Your task to perform on an android device: What's the weather? Image 0: 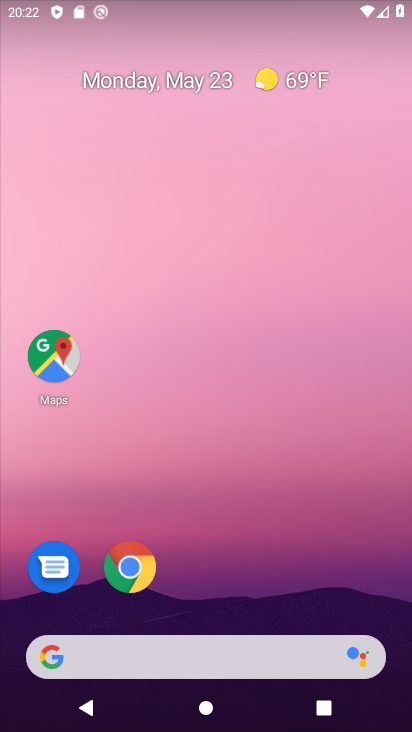
Step 0: drag from (207, 600) to (233, 42)
Your task to perform on an android device: What's the weather? Image 1: 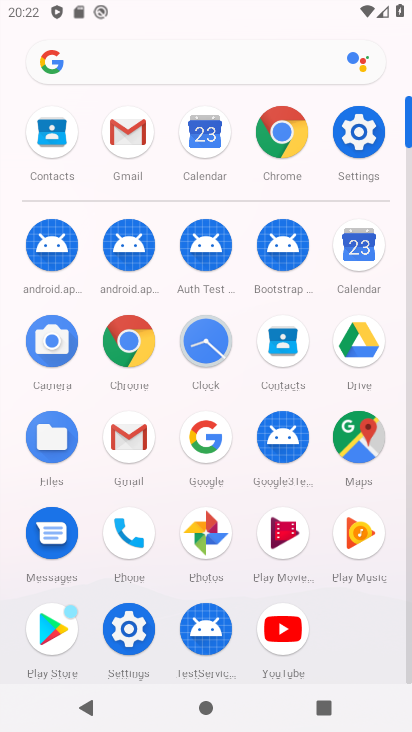
Step 1: drag from (257, 49) to (229, 583)
Your task to perform on an android device: What's the weather? Image 2: 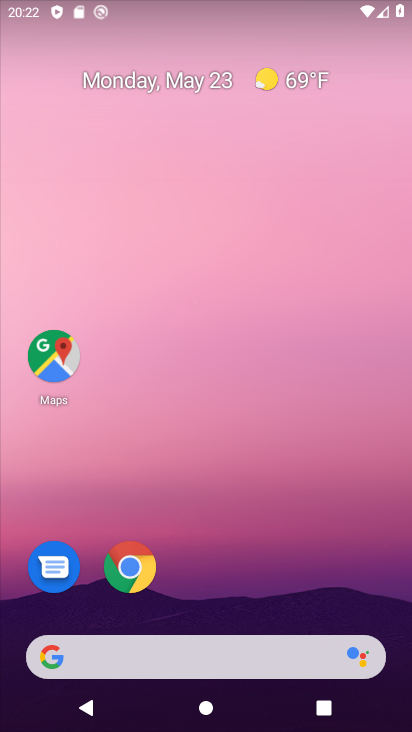
Step 2: click (309, 68)
Your task to perform on an android device: What's the weather? Image 3: 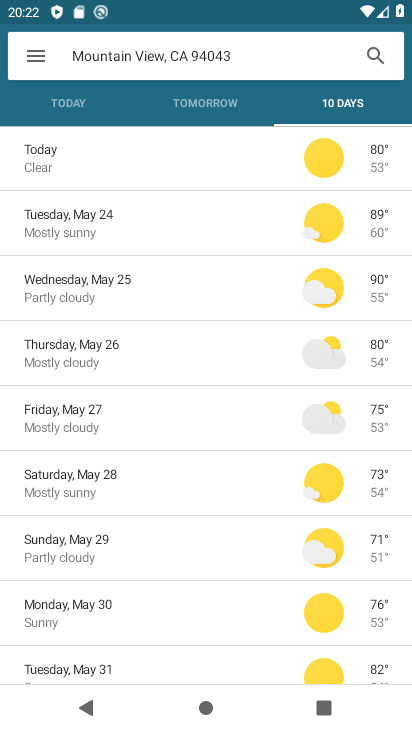
Step 3: click (50, 109)
Your task to perform on an android device: What's the weather? Image 4: 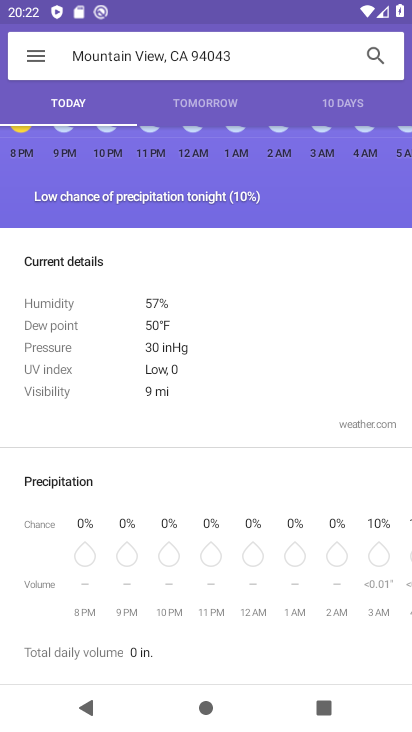
Step 4: task complete